Your task to perform on an android device: see sites visited before in the chrome app Image 0: 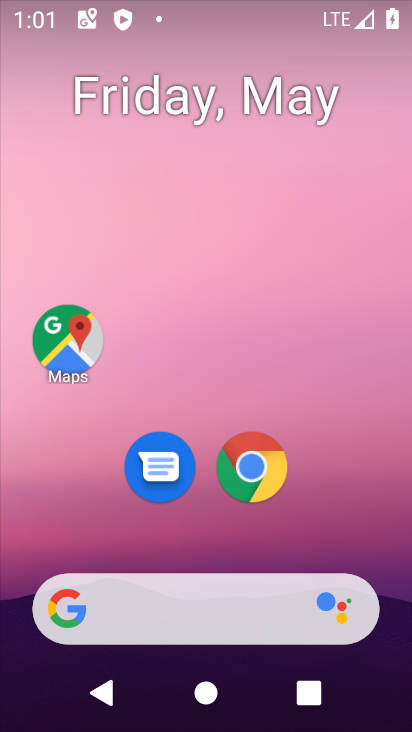
Step 0: click (253, 467)
Your task to perform on an android device: see sites visited before in the chrome app Image 1: 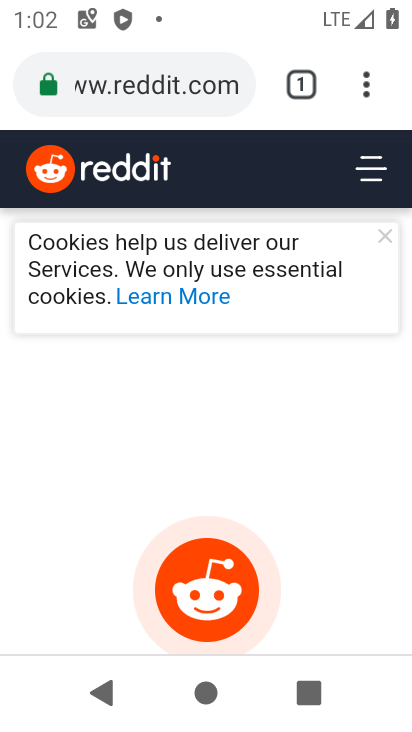
Step 1: click (369, 86)
Your task to perform on an android device: see sites visited before in the chrome app Image 2: 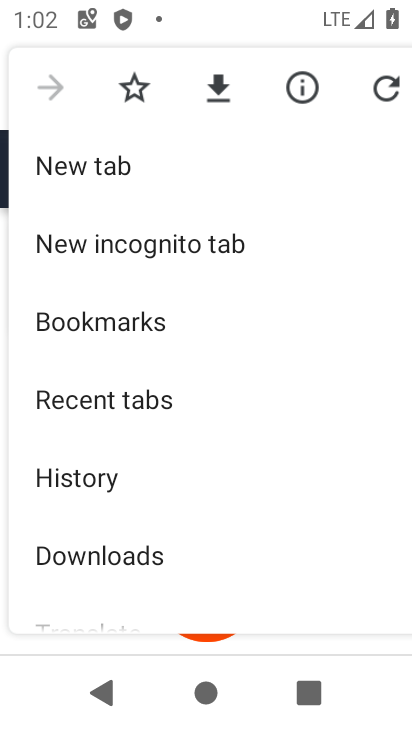
Step 2: click (76, 479)
Your task to perform on an android device: see sites visited before in the chrome app Image 3: 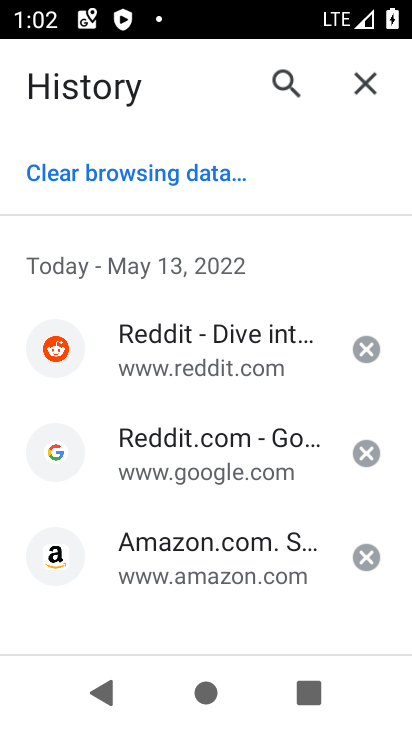
Step 3: task complete